Your task to perform on an android device: Go to Amazon Image 0: 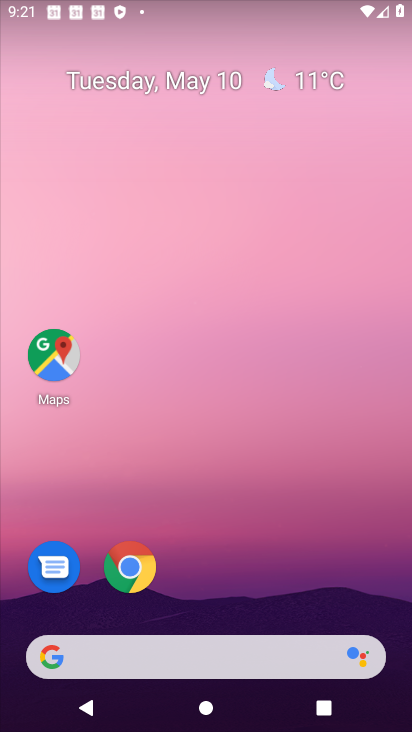
Step 0: click (138, 567)
Your task to perform on an android device: Go to Amazon Image 1: 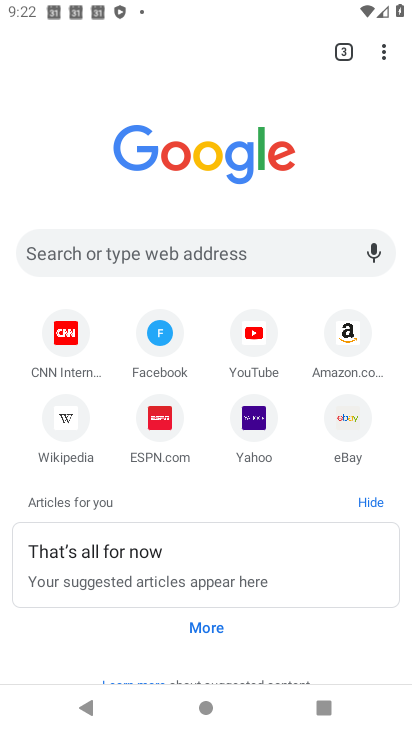
Step 1: click (351, 335)
Your task to perform on an android device: Go to Amazon Image 2: 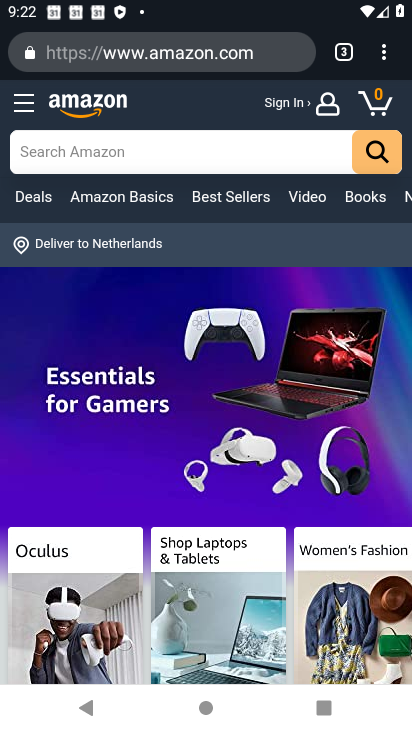
Step 2: task complete